Your task to perform on an android device: Open calendar and show me the third week of next month Image 0: 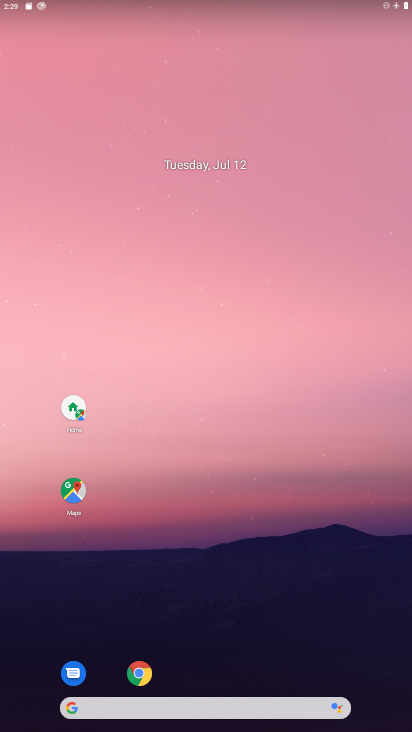
Step 0: drag from (214, 636) to (227, 117)
Your task to perform on an android device: Open calendar and show me the third week of next month Image 1: 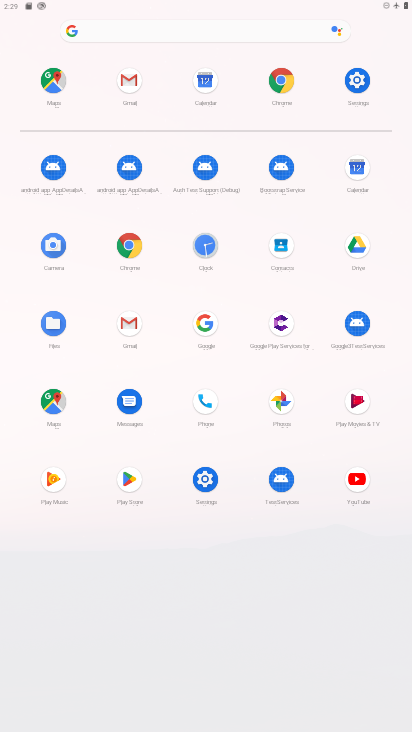
Step 1: click (356, 168)
Your task to perform on an android device: Open calendar and show me the third week of next month Image 2: 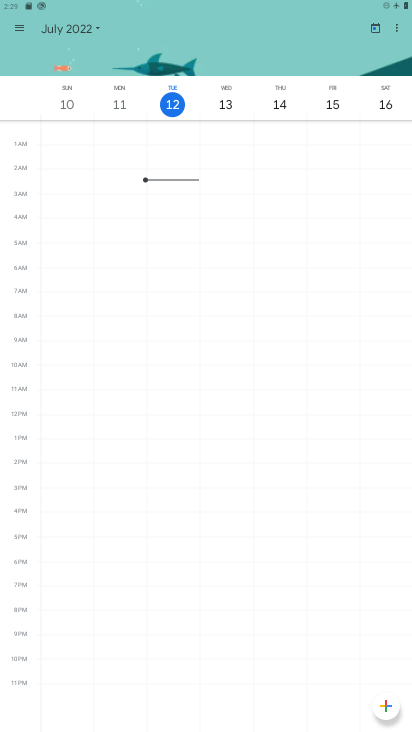
Step 2: click (17, 29)
Your task to perform on an android device: Open calendar and show me the third week of next month Image 3: 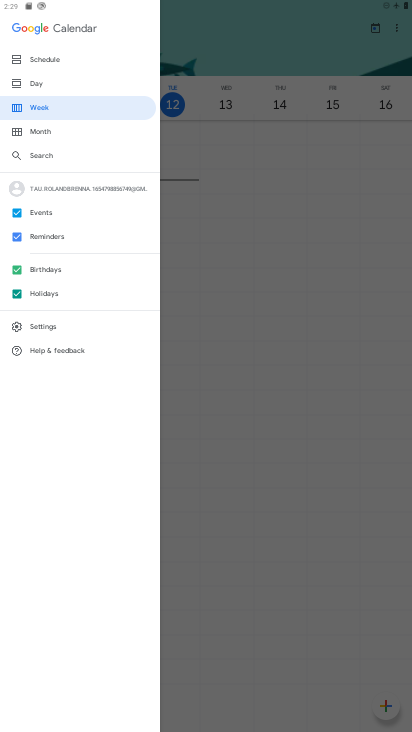
Step 3: click (49, 132)
Your task to perform on an android device: Open calendar and show me the third week of next month Image 4: 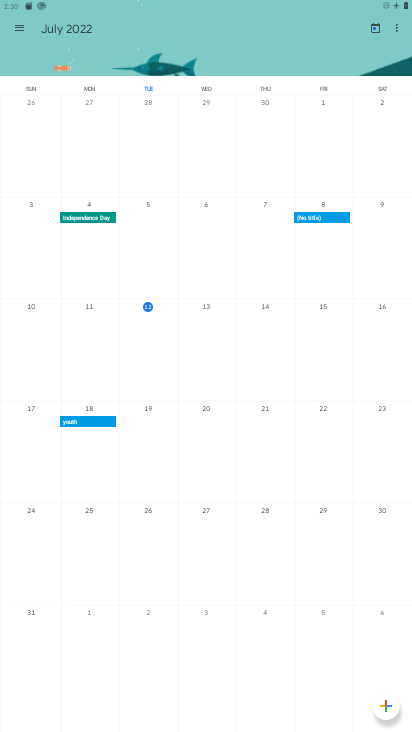
Step 4: task complete